Your task to perform on an android device: Open Chrome and go to the settings page Image 0: 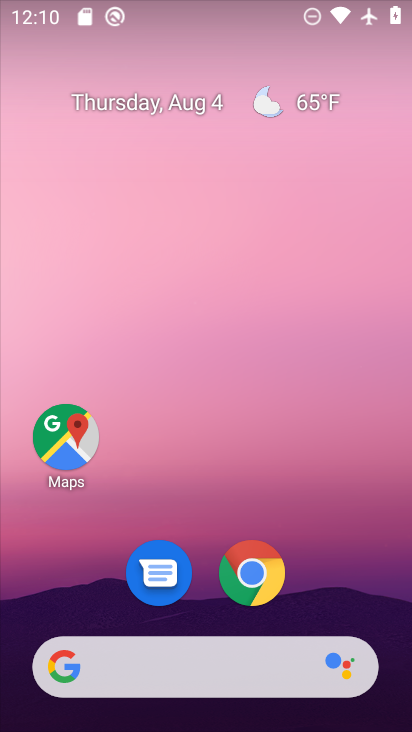
Step 0: drag from (370, 495) to (331, 168)
Your task to perform on an android device: Open Chrome and go to the settings page Image 1: 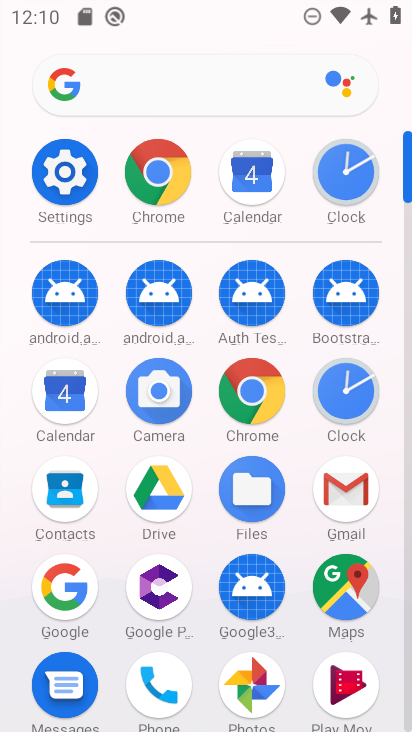
Step 1: click (254, 401)
Your task to perform on an android device: Open Chrome and go to the settings page Image 2: 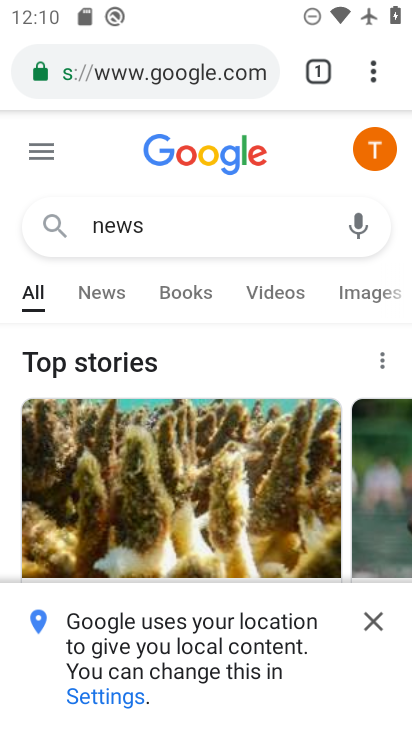
Step 2: click (371, 72)
Your task to perform on an android device: Open Chrome and go to the settings page Image 3: 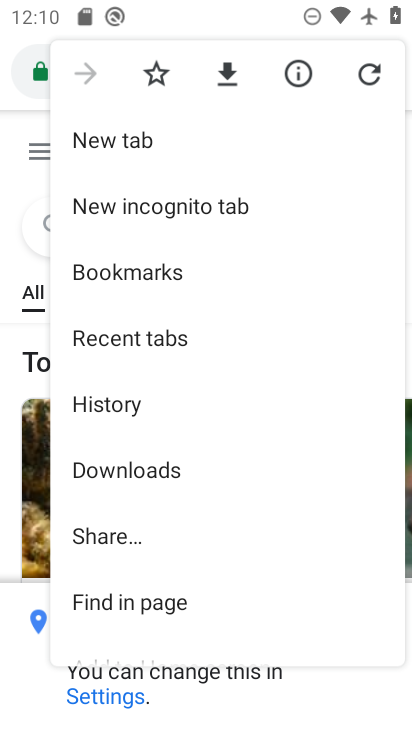
Step 3: drag from (187, 553) to (265, 166)
Your task to perform on an android device: Open Chrome and go to the settings page Image 4: 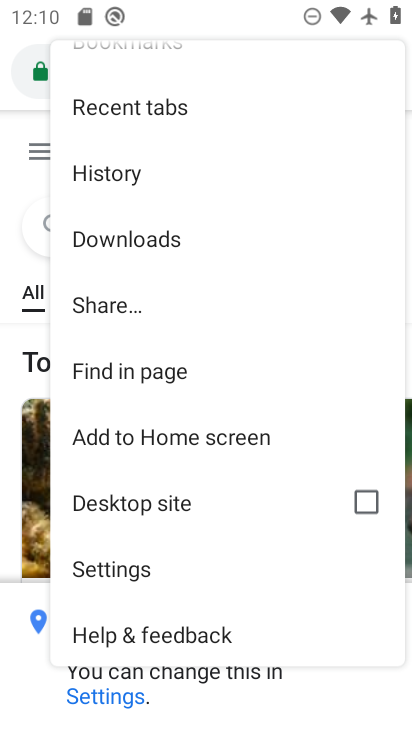
Step 4: click (135, 571)
Your task to perform on an android device: Open Chrome and go to the settings page Image 5: 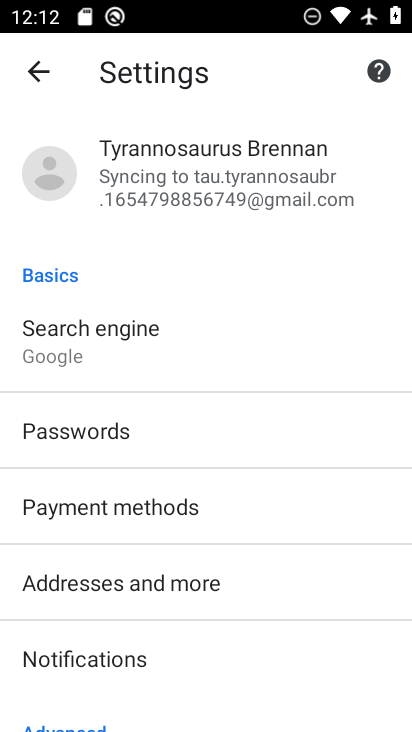
Step 5: task complete